Your task to perform on an android device: clear all cookies in the chrome app Image 0: 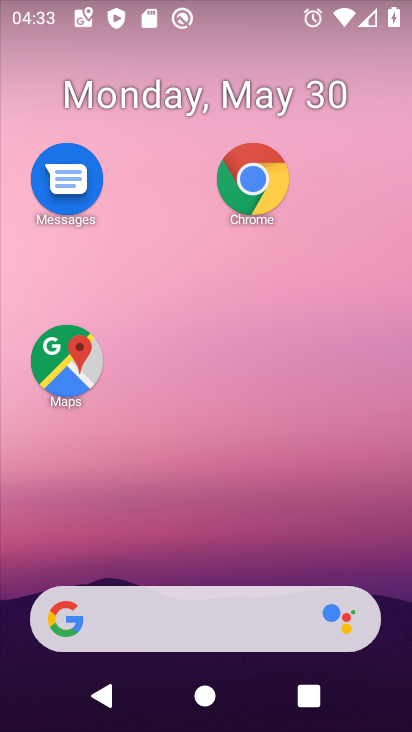
Step 0: click (255, 172)
Your task to perform on an android device: clear all cookies in the chrome app Image 1: 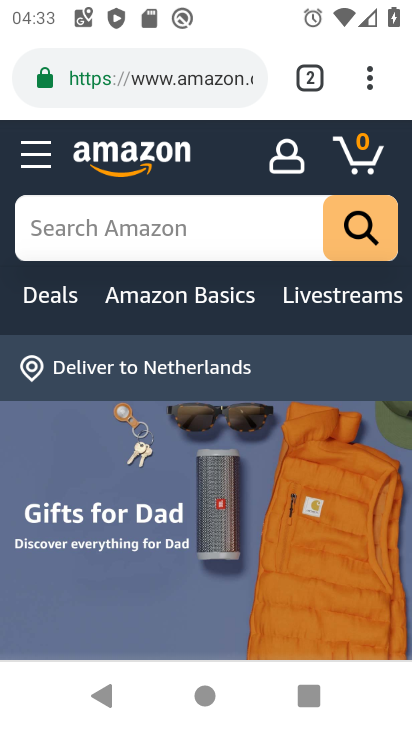
Step 1: click (367, 78)
Your task to perform on an android device: clear all cookies in the chrome app Image 2: 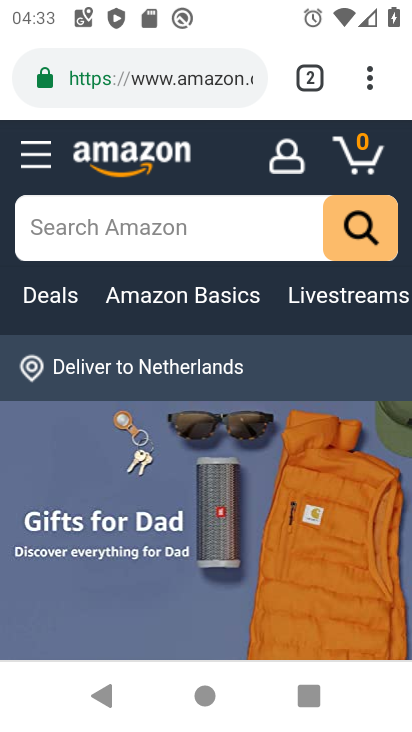
Step 2: click (372, 79)
Your task to perform on an android device: clear all cookies in the chrome app Image 3: 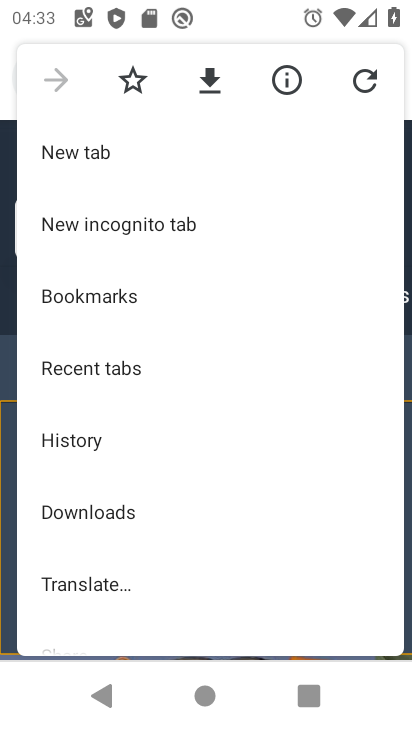
Step 3: drag from (151, 531) to (188, 167)
Your task to perform on an android device: clear all cookies in the chrome app Image 4: 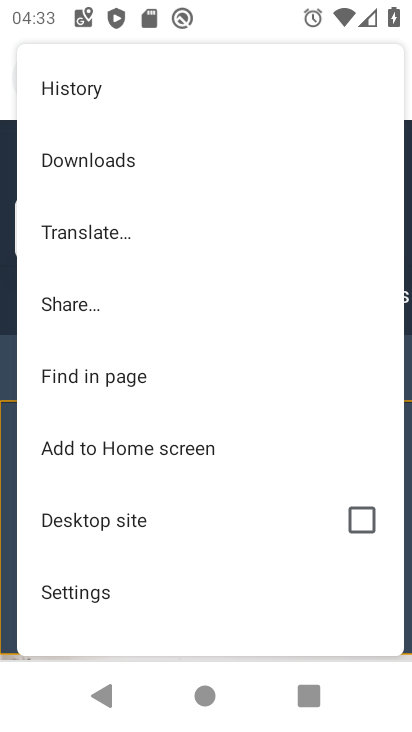
Step 4: click (99, 103)
Your task to perform on an android device: clear all cookies in the chrome app Image 5: 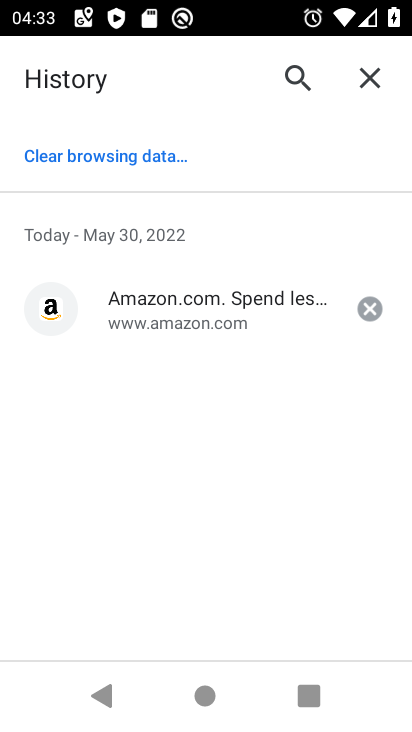
Step 5: click (99, 164)
Your task to perform on an android device: clear all cookies in the chrome app Image 6: 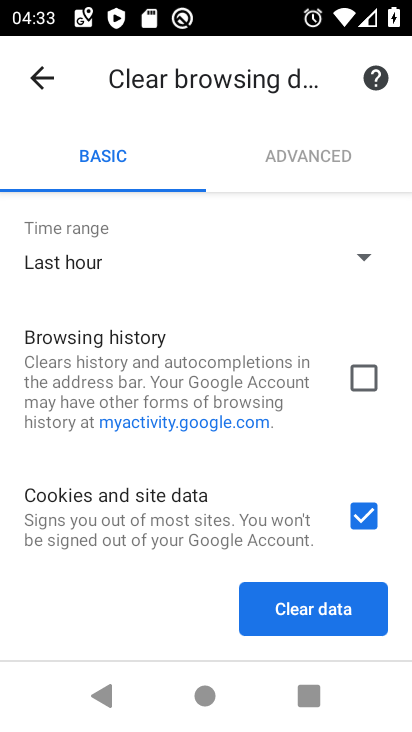
Step 6: click (311, 606)
Your task to perform on an android device: clear all cookies in the chrome app Image 7: 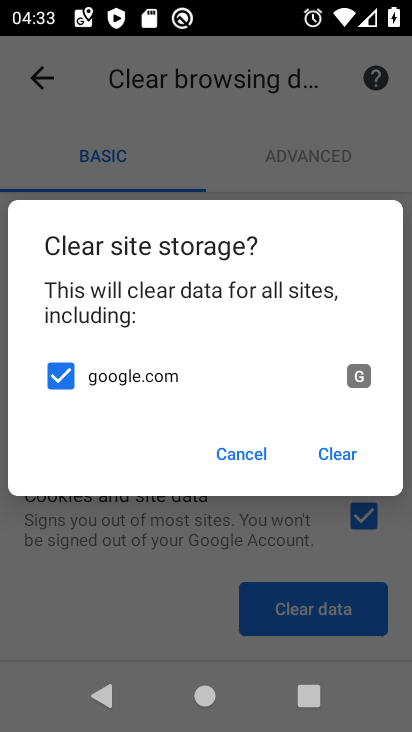
Step 7: click (324, 448)
Your task to perform on an android device: clear all cookies in the chrome app Image 8: 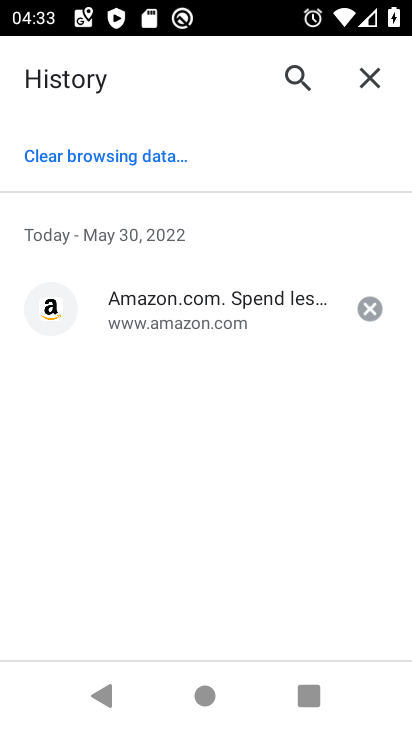
Step 8: task complete